Your task to perform on an android device: change the clock style Image 0: 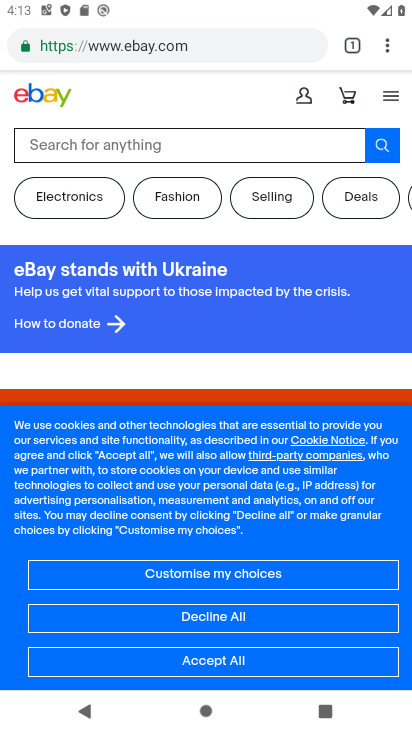
Step 0: press back button
Your task to perform on an android device: change the clock style Image 1: 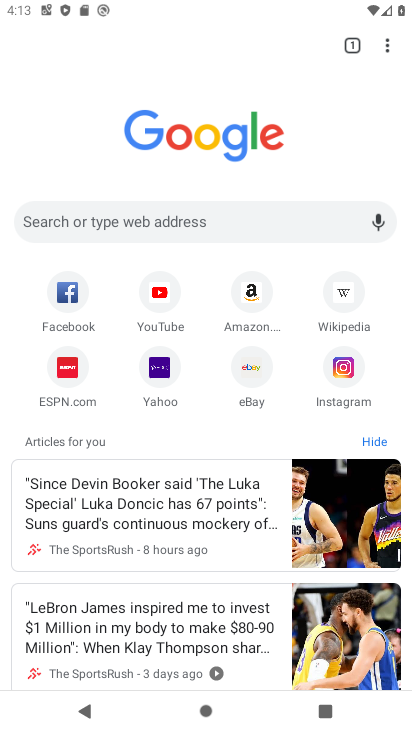
Step 1: press back button
Your task to perform on an android device: change the clock style Image 2: 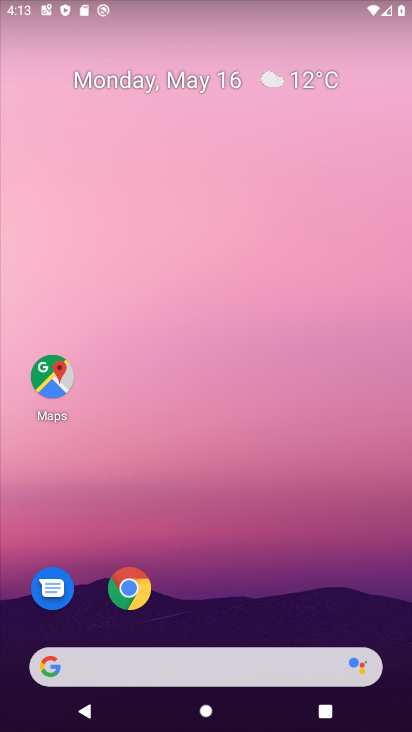
Step 2: drag from (196, 587) to (282, 3)
Your task to perform on an android device: change the clock style Image 3: 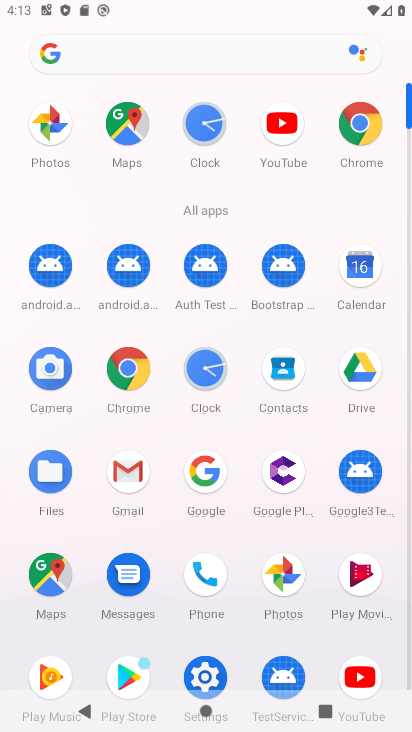
Step 3: click (209, 365)
Your task to perform on an android device: change the clock style Image 4: 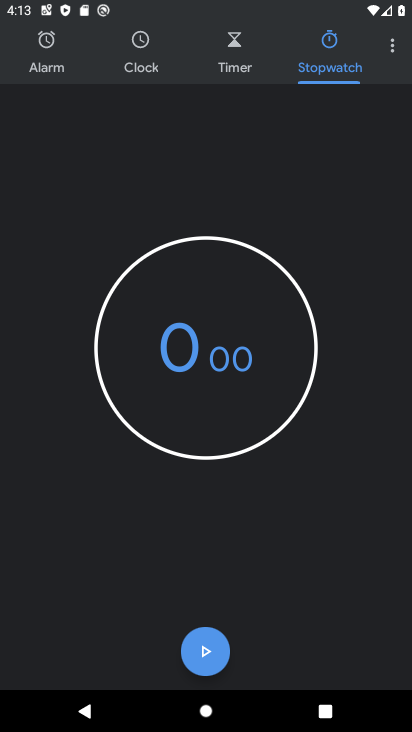
Step 4: click (391, 46)
Your task to perform on an android device: change the clock style Image 5: 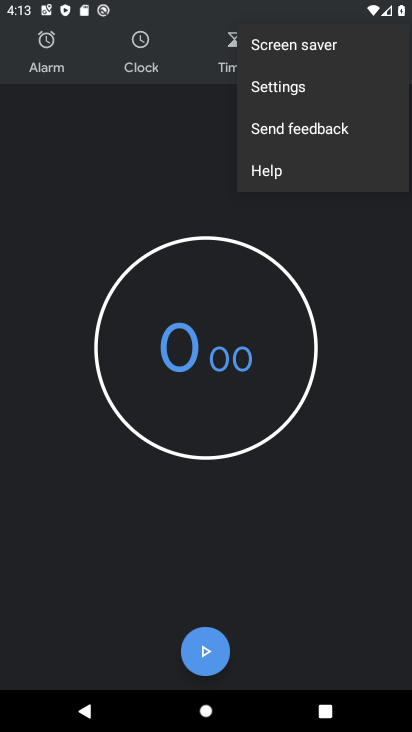
Step 5: click (325, 92)
Your task to perform on an android device: change the clock style Image 6: 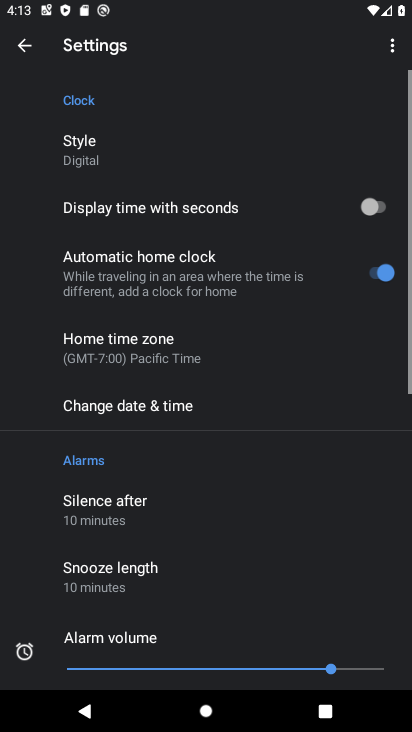
Step 6: click (119, 141)
Your task to perform on an android device: change the clock style Image 7: 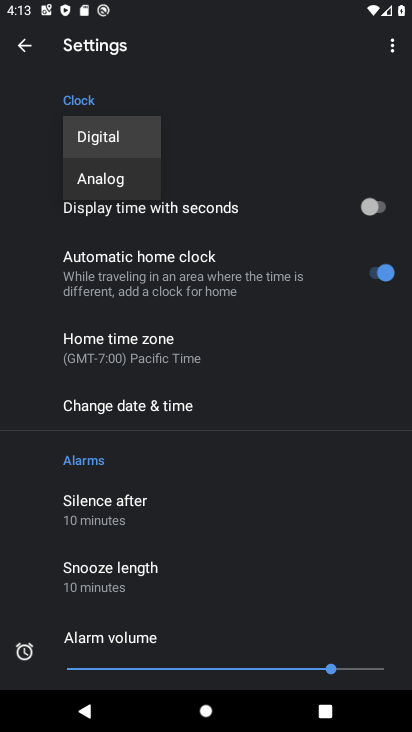
Step 7: click (112, 186)
Your task to perform on an android device: change the clock style Image 8: 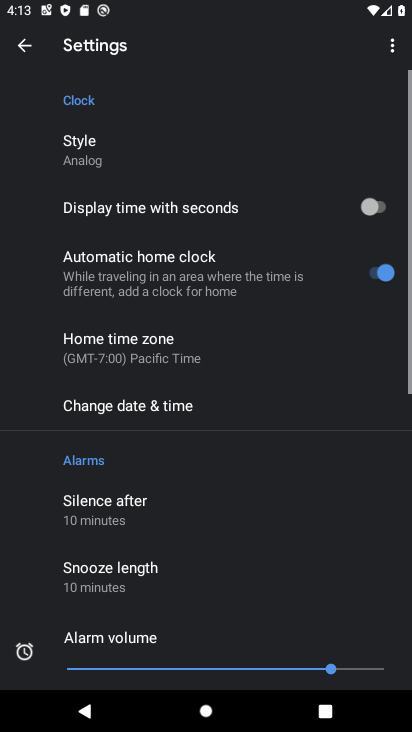
Step 8: task complete